Your task to perform on an android device: Is it going to rain tomorrow? Image 0: 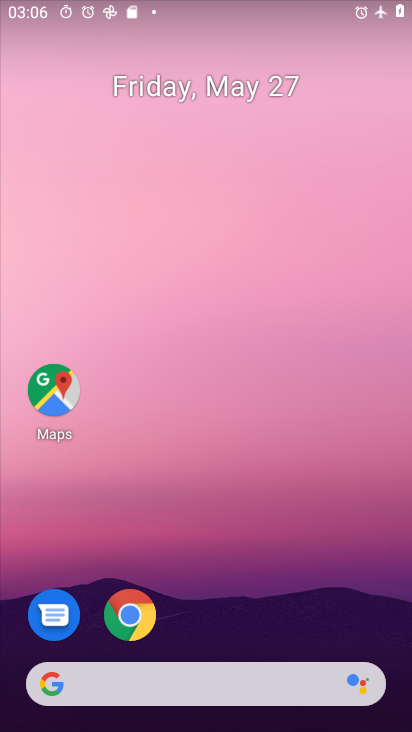
Step 0: click (285, 673)
Your task to perform on an android device: Is it going to rain tomorrow? Image 1: 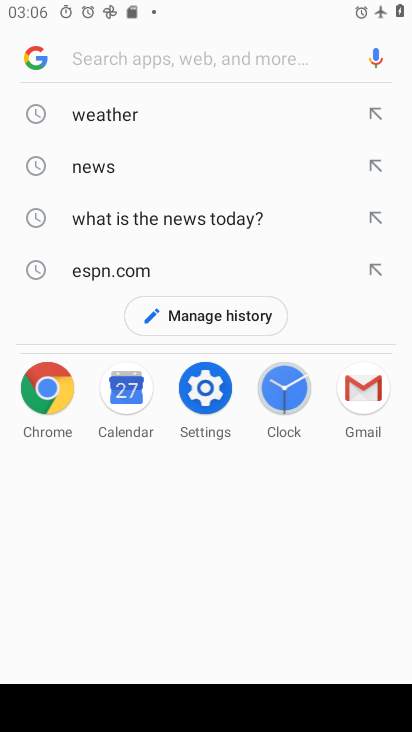
Step 1: click (130, 115)
Your task to perform on an android device: Is it going to rain tomorrow? Image 2: 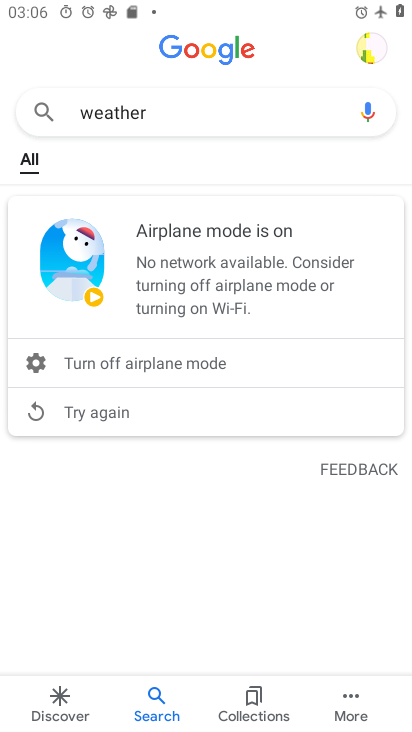
Step 2: task complete